Your task to perform on an android device: What is the capital of Mexico? Image 0: 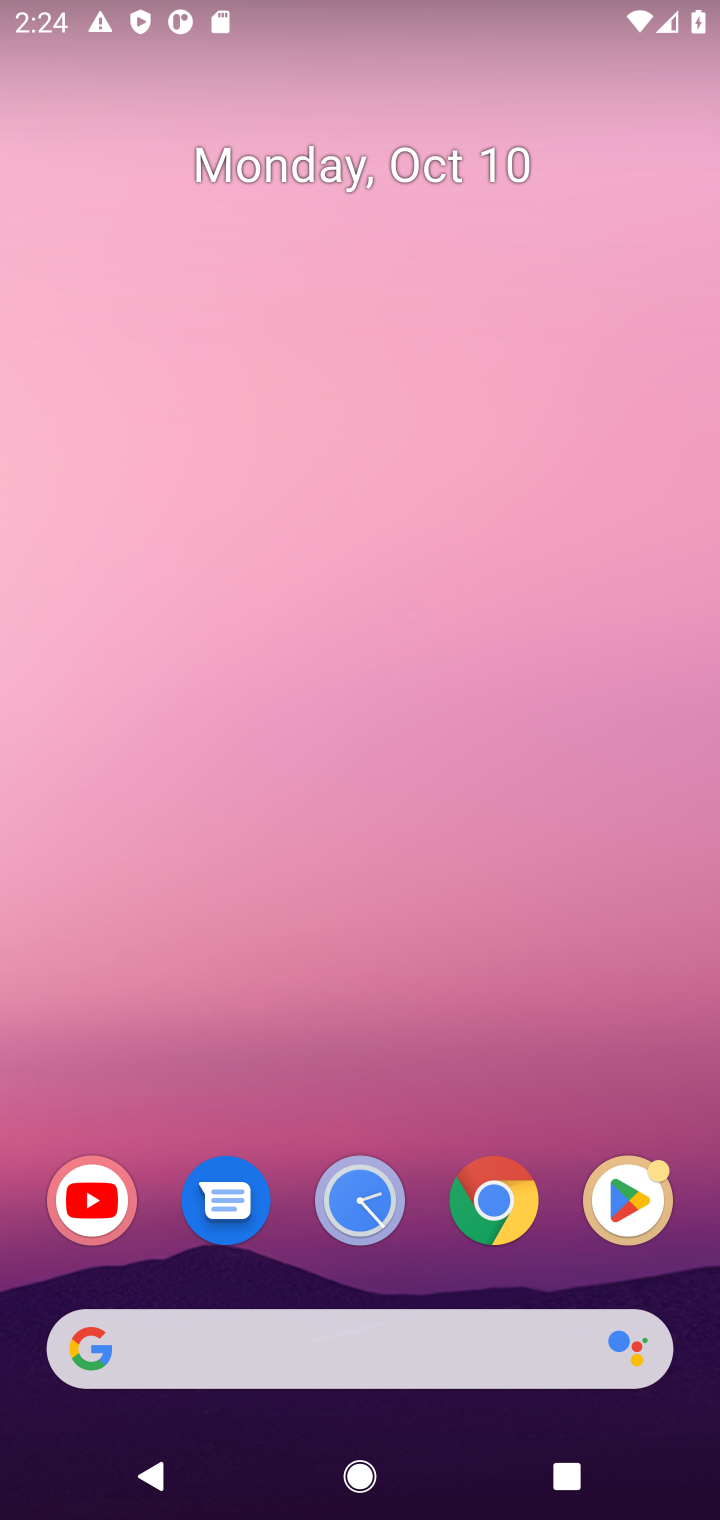
Step 0: click (513, 1228)
Your task to perform on an android device: What is the capital of Mexico? Image 1: 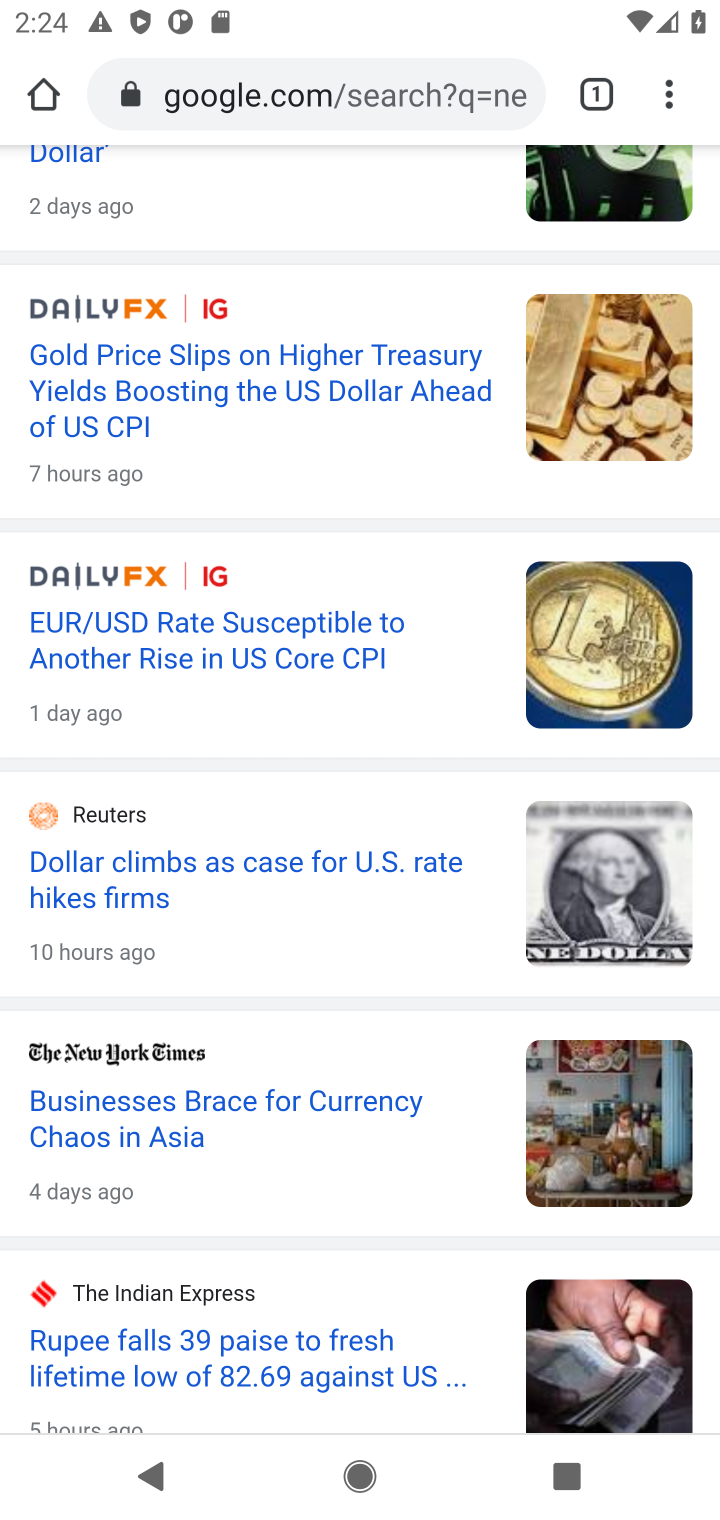
Step 1: click (358, 103)
Your task to perform on an android device: What is the capital of Mexico? Image 2: 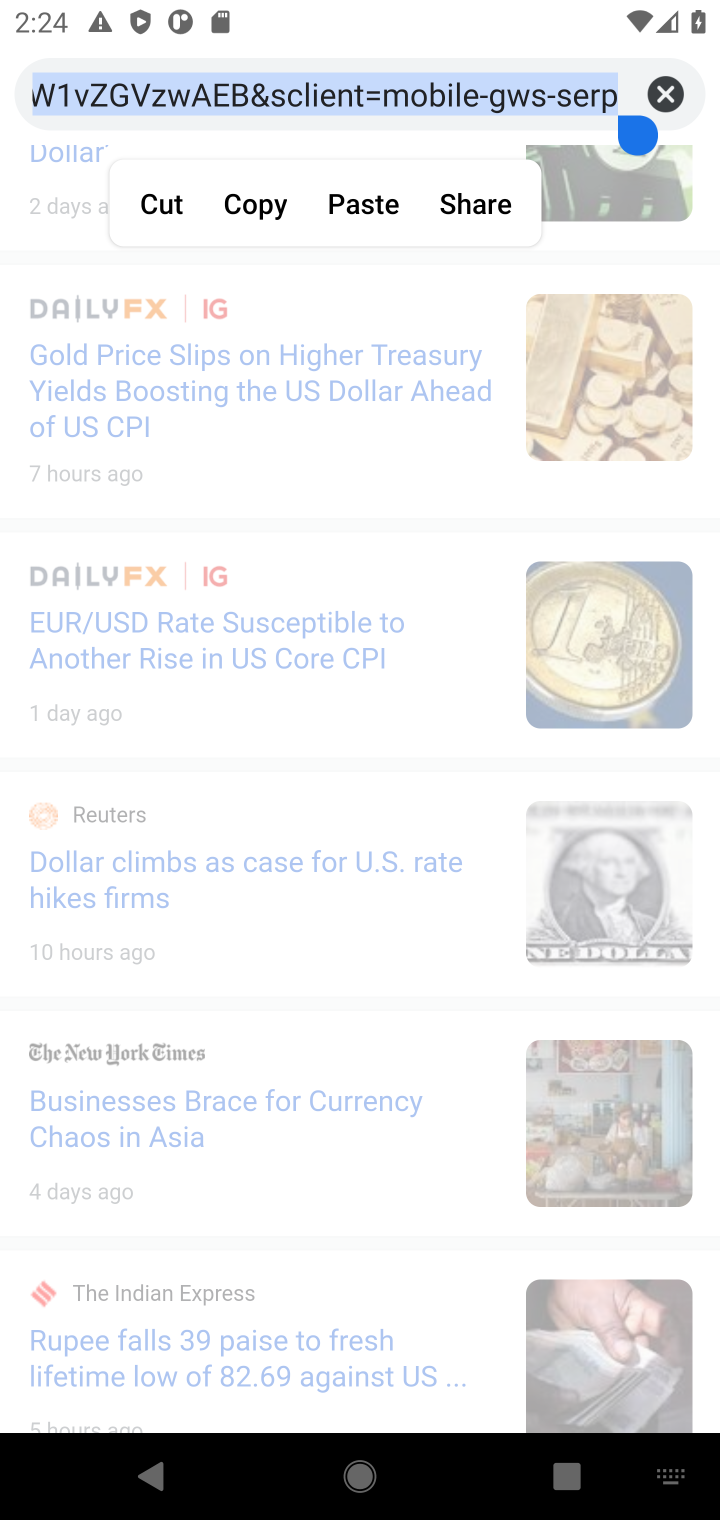
Step 2: type "capital of Mexico"
Your task to perform on an android device: What is the capital of Mexico? Image 3: 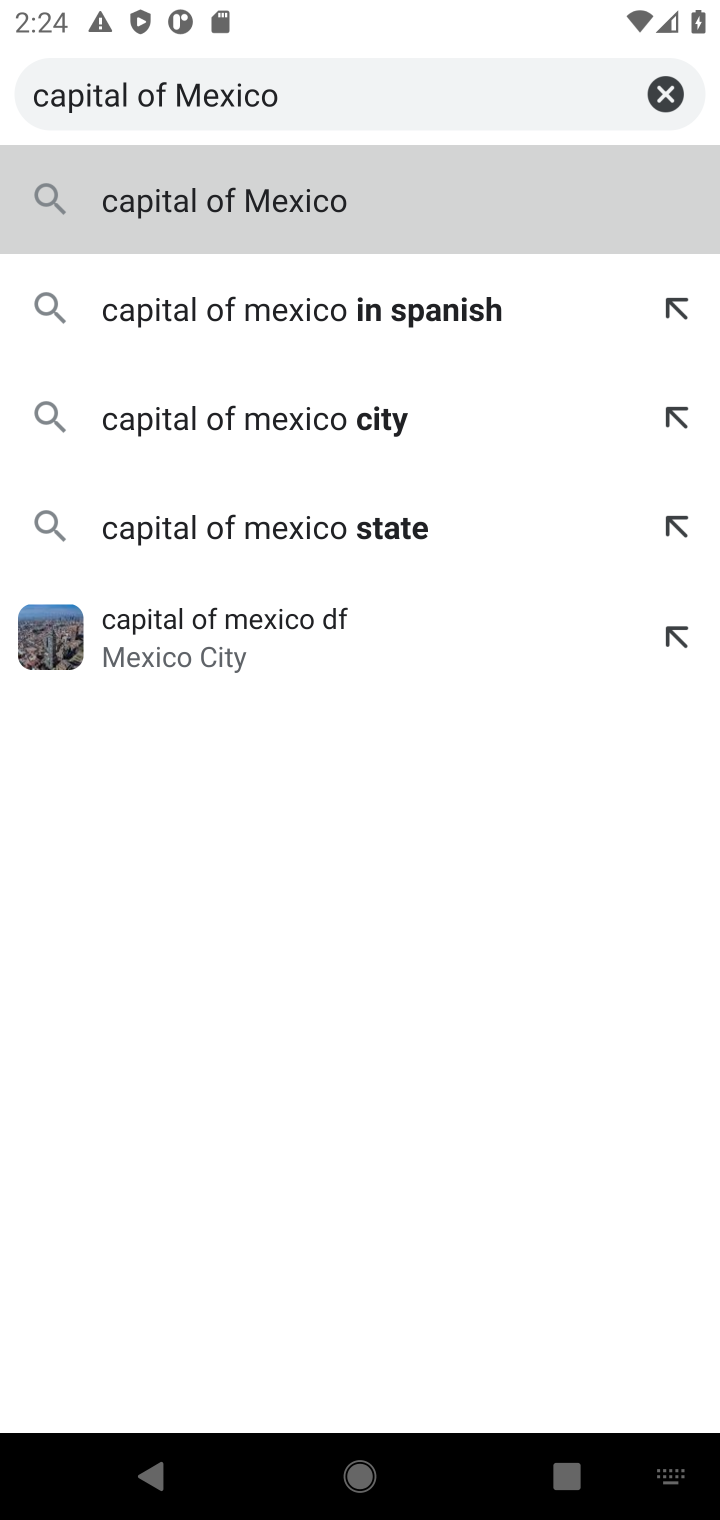
Step 3: click (430, 225)
Your task to perform on an android device: What is the capital of Mexico? Image 4: 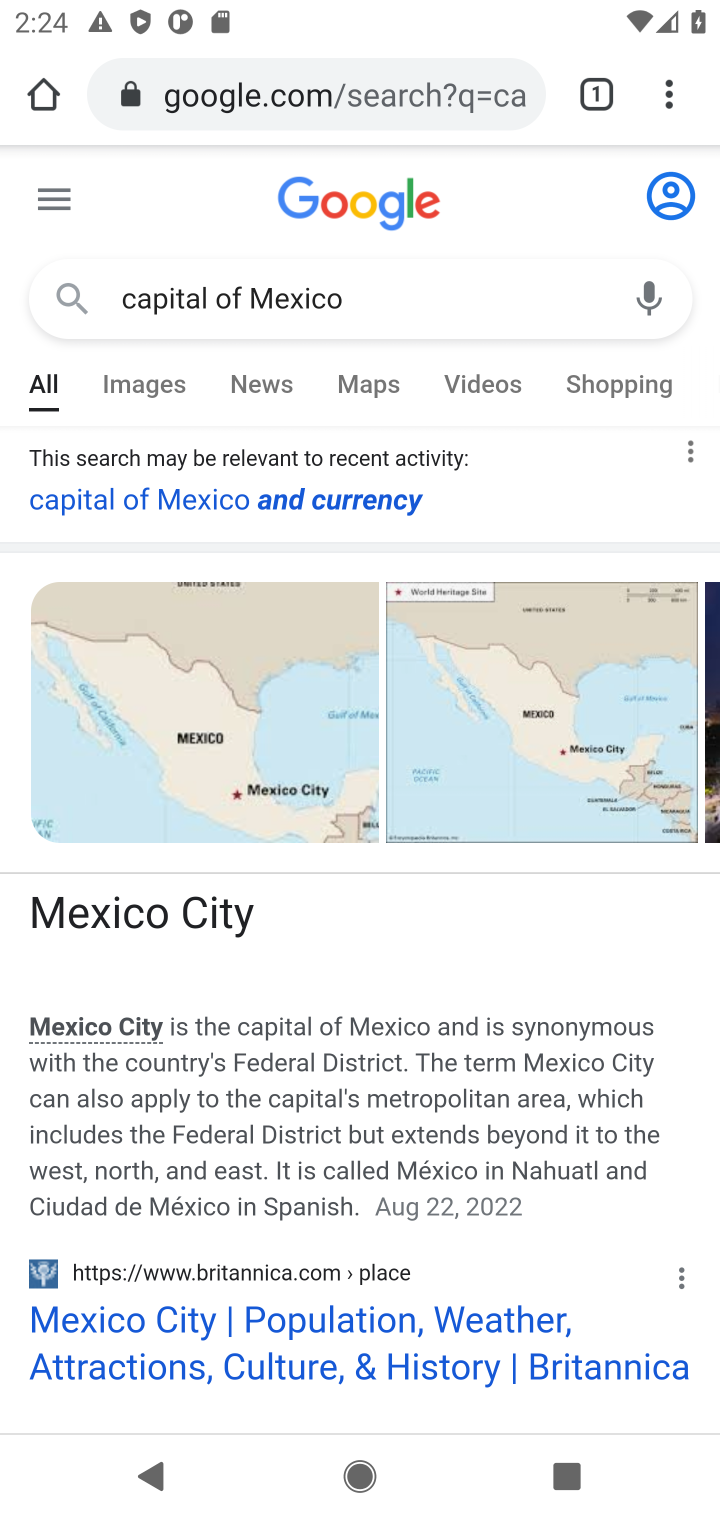
Step 4: task complete